Your task to perform on an android device: Open the map Image 0: 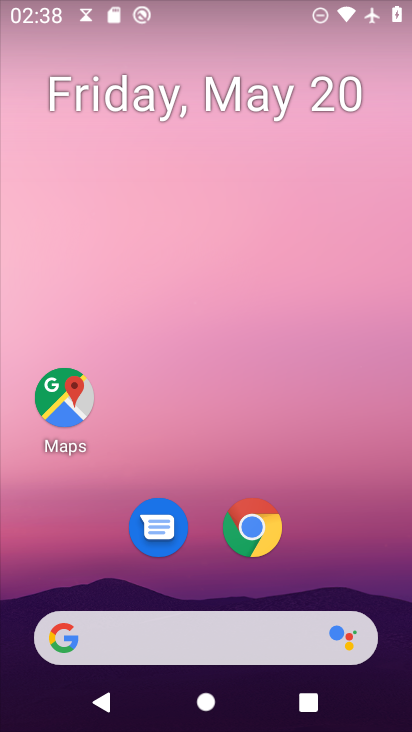
Step 0: press home button
Your task to perform on an android device: Open the map Image 1: 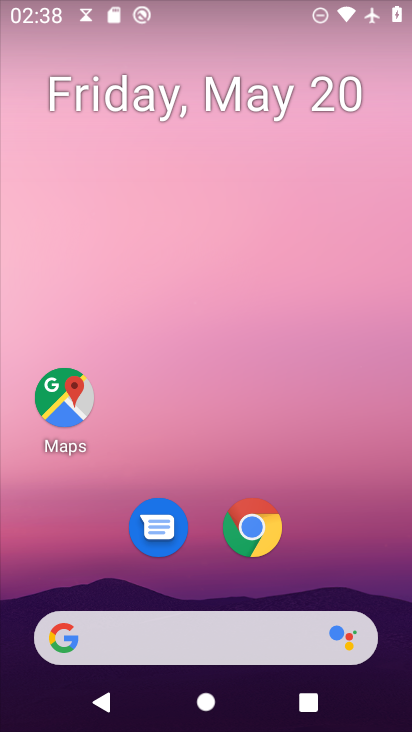
Step 1: click (61, 403)
Your task to perform on an android device: Open the map Image 2: 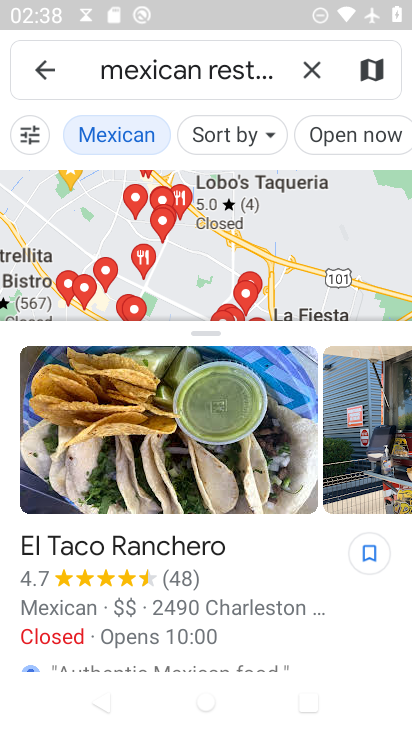
Step 2: click (42, 71)
Your task to perform on an android device: Open the map Image 3: 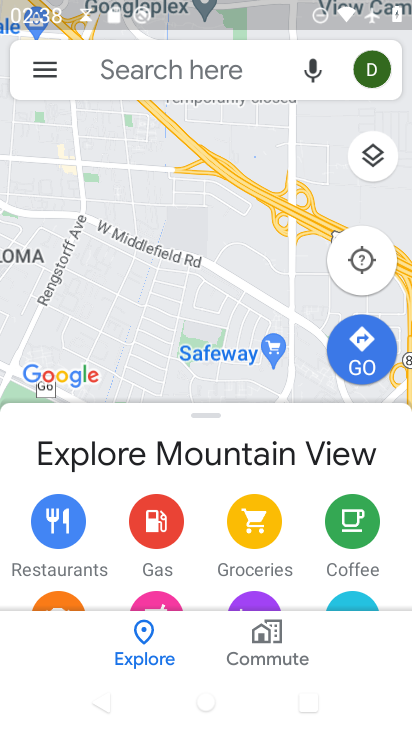
Step 3: task complete